Your task to perform on an android device: Open calendar and show me the first week of next month Image 0: 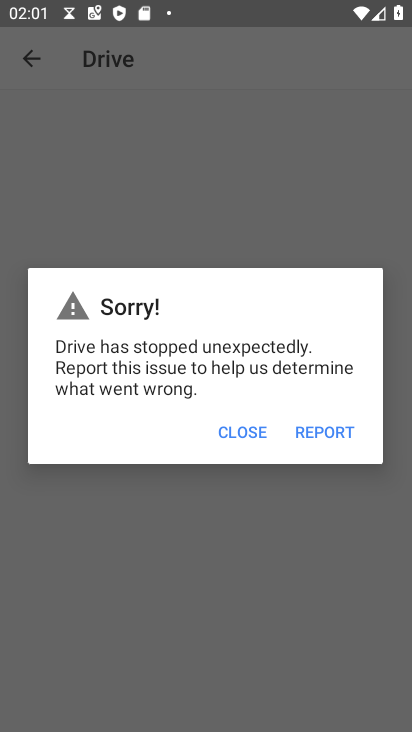
Step 0: click (332, 427)
Your task to perform on an android device: Open calendar and show me the first week of next month Image 1: 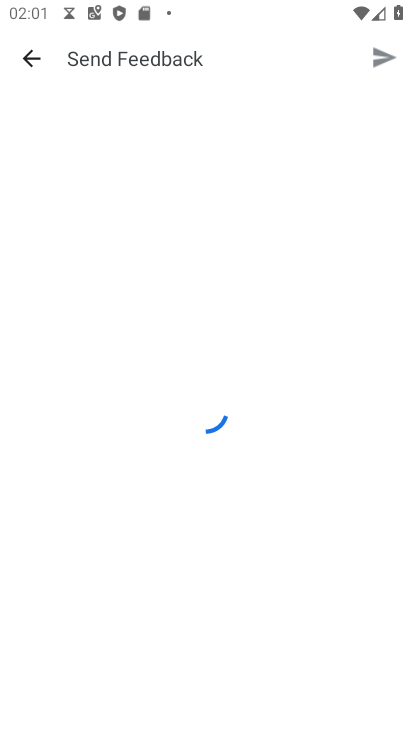
Step 1: press home button
Your task to perform on an android device: Open calendar and show me the first week of next month Image 2: 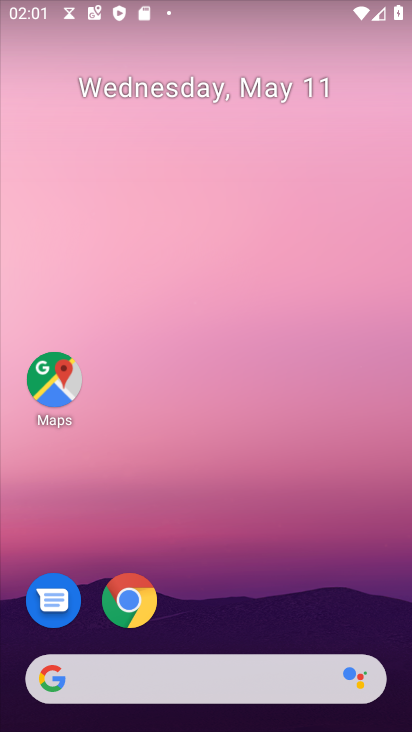
Step 2: drag from (237, 601) to (271, 259)
Your task to perform on an android device: Open calendar and show me the first week of next month Image 3: 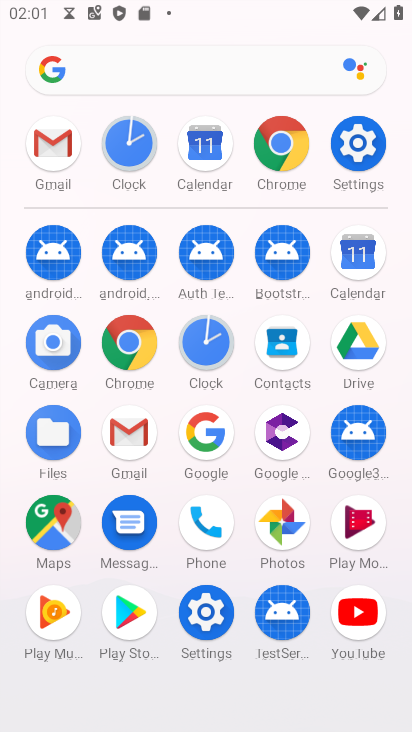
Step 3: click (359, 246)
Your task to perform on an android device: Open calendar and show me the first week of next month Image 4: 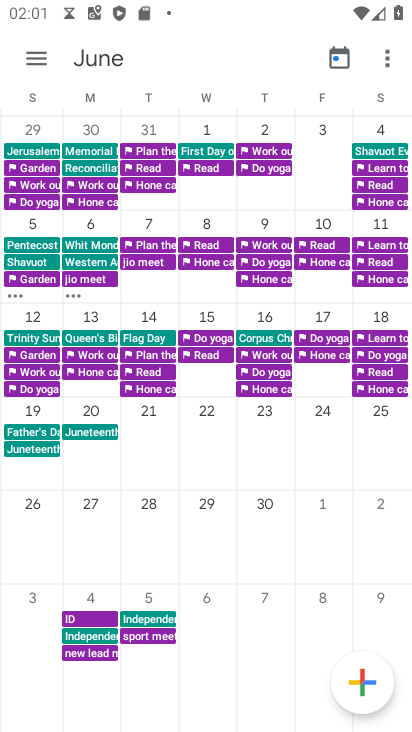
Step 4: task complete